Your task to perform on an android device: Open Amazon Image 0: 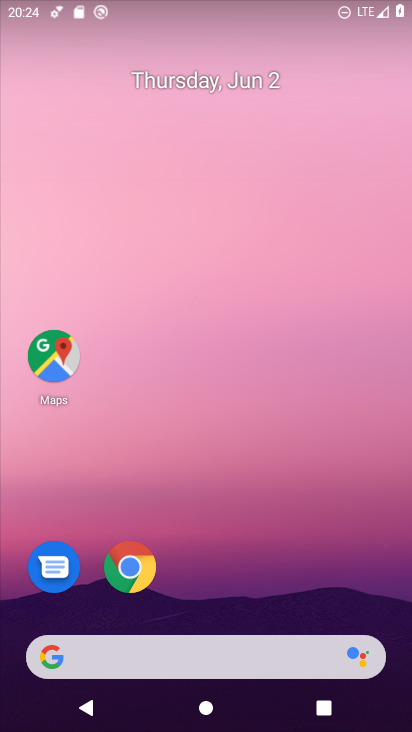
Step 0: drag from (152, 610) to (262, 179)
Your task to perform on an android device: Open Amazon Image 1: 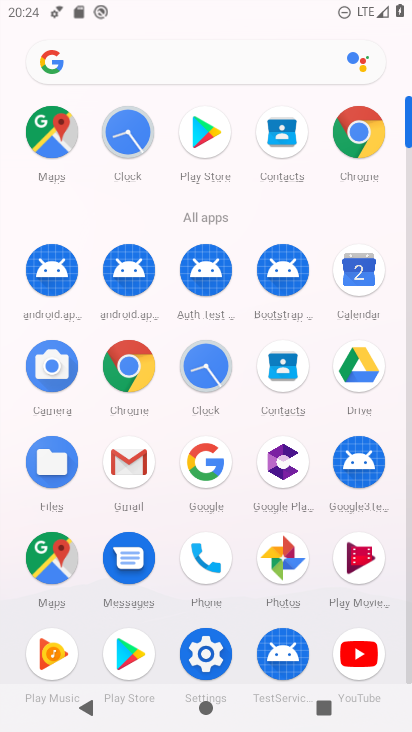
Step 1: click (128, 367)
Your task to perform on an android device: Open Amazon Image 2: 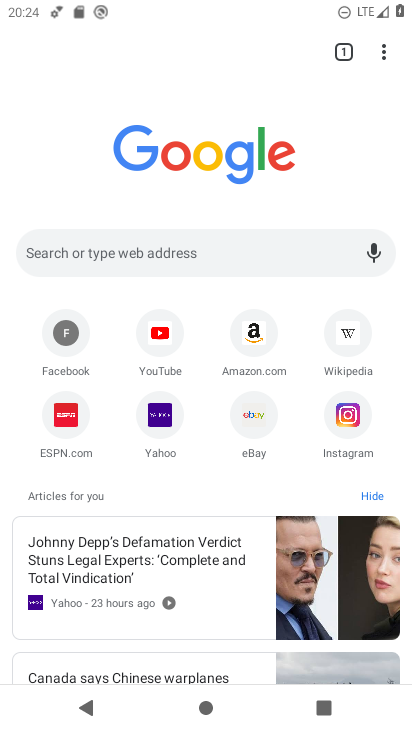
Step 2: click (268, 327)
Your task to perform on an android device: Open Amazon Image 3: 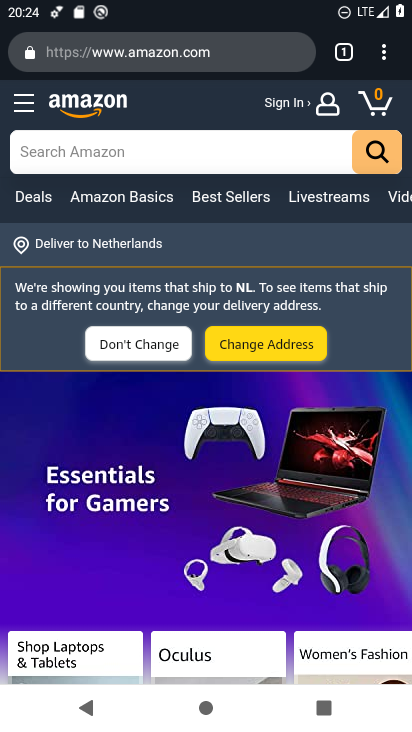
Step 3: task complete